Your task to perform on an android device: open a new tab in the chrome app Image 0: 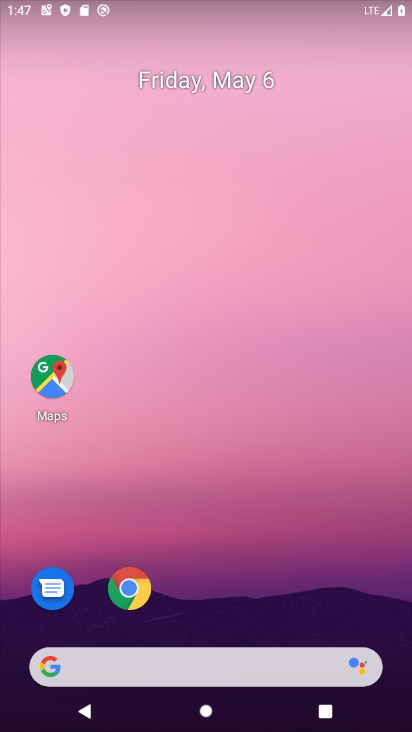
Step 0: press home button
Your task to perform on an android device: open a new tab in the chrome app Image 1: 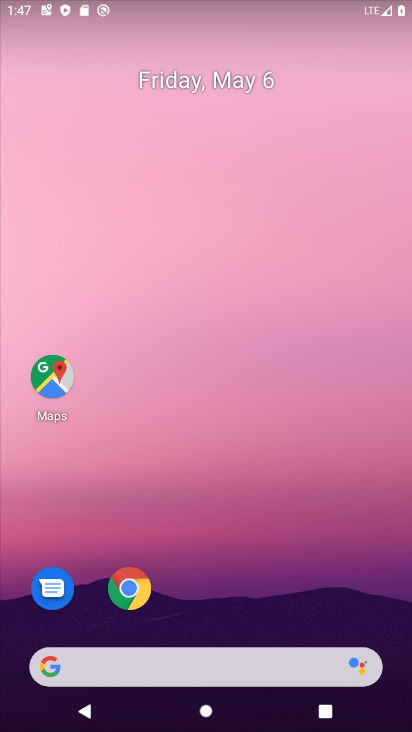
Step 1: drag from (326, 589) to (309, 221)
Your task to perform on an android device: open a new tab in the chrome app Image 2: 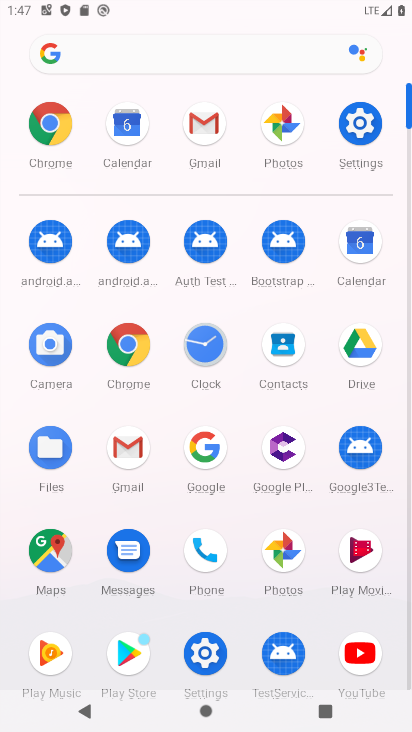
Step 2: click (131, 353)
Your task to perform on an android device: open a new tab in the chrome app Image 3: 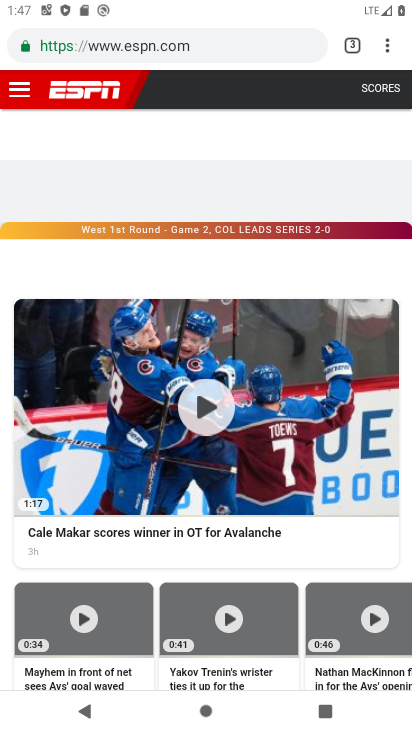
Step 3: click (348, 41)
Your task to perform on an android device: open a new tab in the chrome app Image 4: 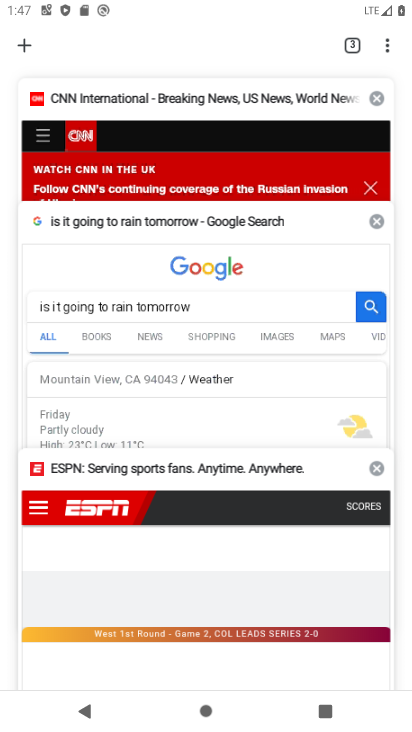
Step 4: click (28, 43)
Your task to perform on an android device: open a new tab in the chrome app Image 5: 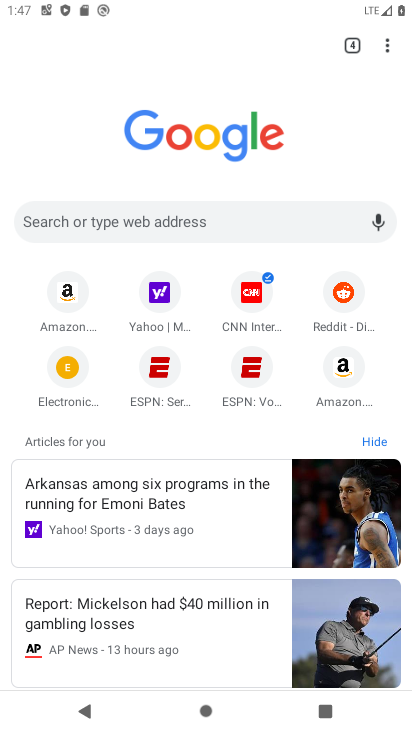
Step 5: task complete